Your task to perform on an android device: Go to eBay Image 0: 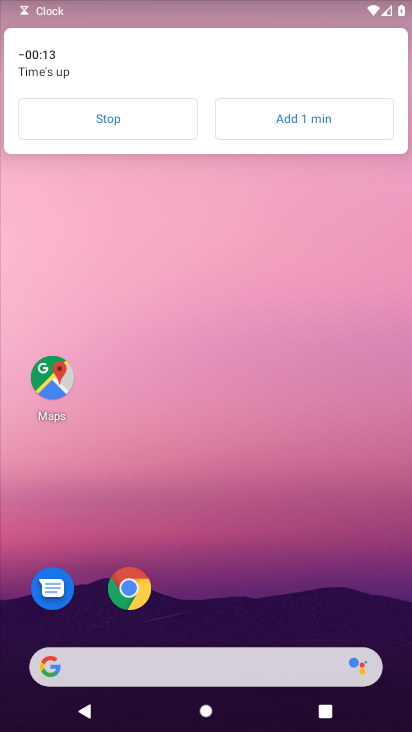
Step 0: click (142, 583)
Your task to perform on an android device: Go to eBay Image 1: 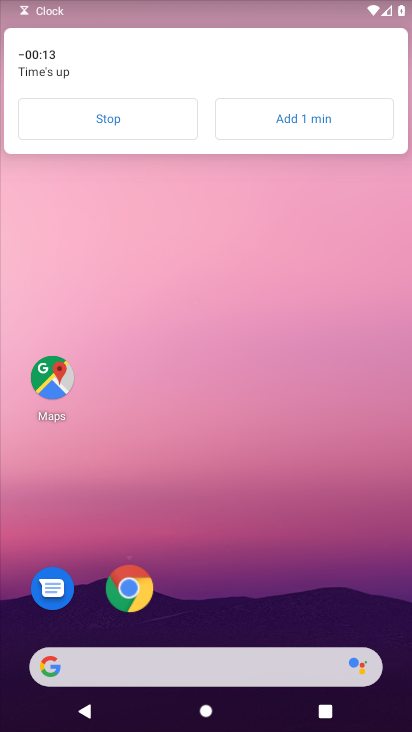
Step 1: click (111, 119)
Your task to perform on an android device: Go to eBay Image 2: 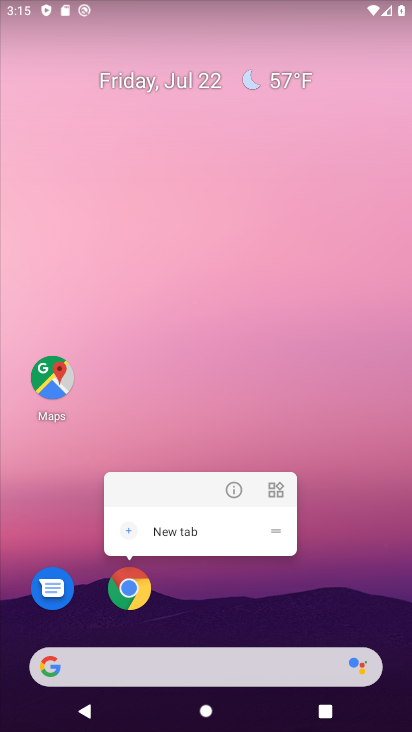
Step 2: click (138, 565)
Your task to perform on an android device: Go to eBay Image 3: 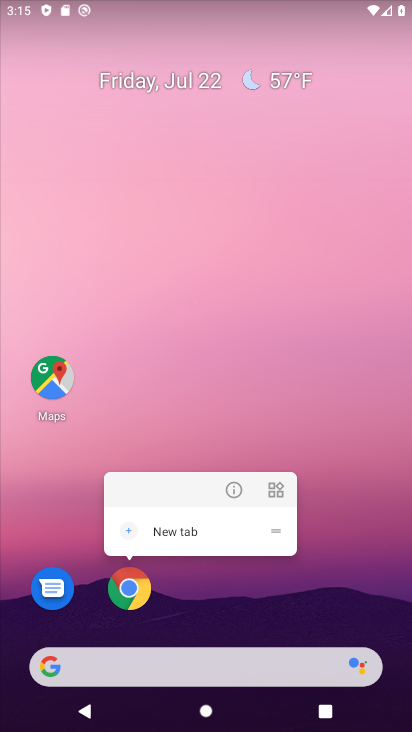
Step 3: click (138, 611)
Your task to perform on an android device: Go to eBay Image 4: 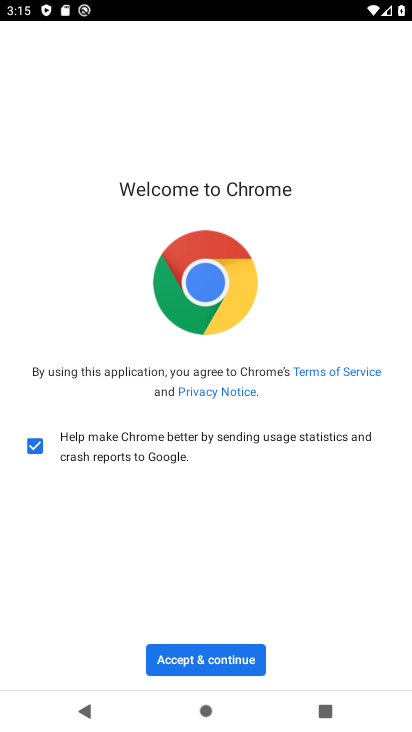
Step 4: click (240, 660)
Your task to perform on an android device: Go to eBay Image 5: 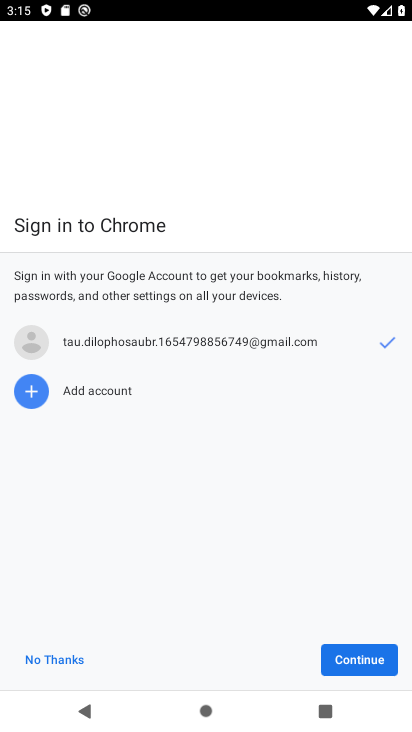
Step 5: click (373, 677)
Your task to perform on an android device: Go to eBay Image 6: 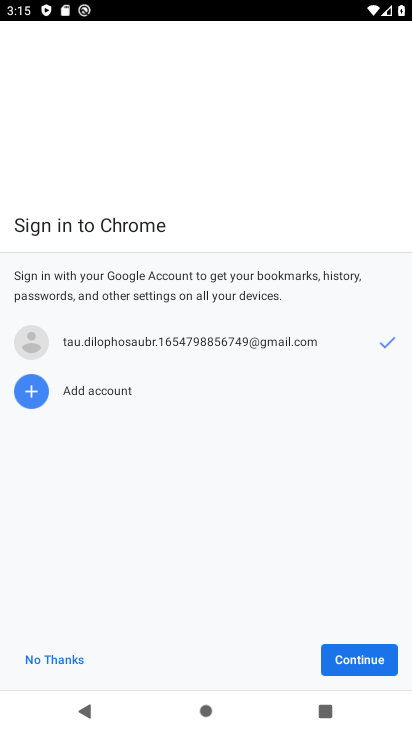
Step 6: click (387, 648)
Your task to perform on an android device: Go to eBay Image 7: 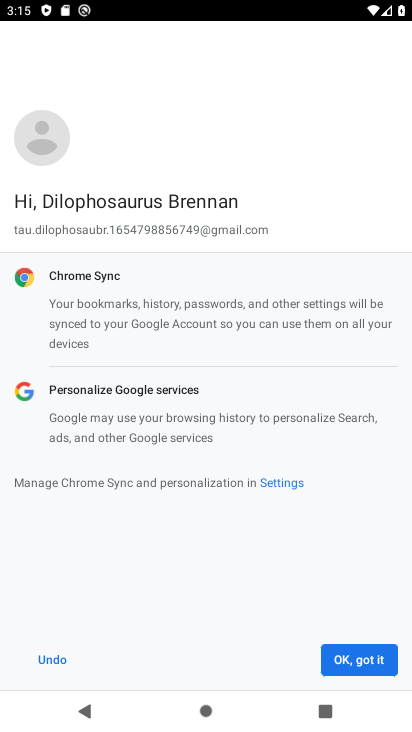
Step 7: click (361, 653)
Your task to perform on an android device: Go to eBay Image 8: 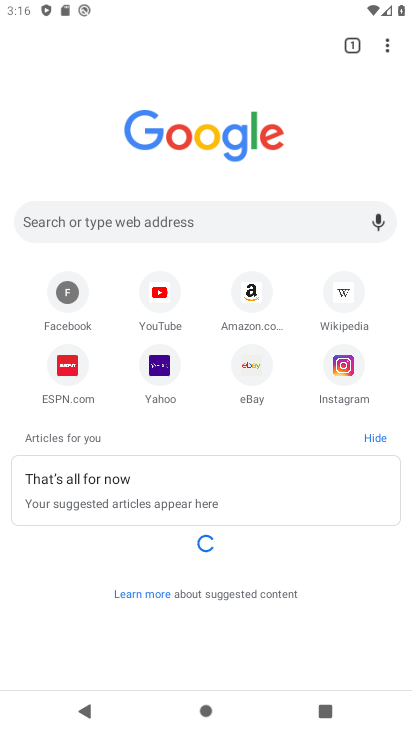
Step 8: click (256, 360)
Your task to perform on an android device: Go to eBay Image 9: 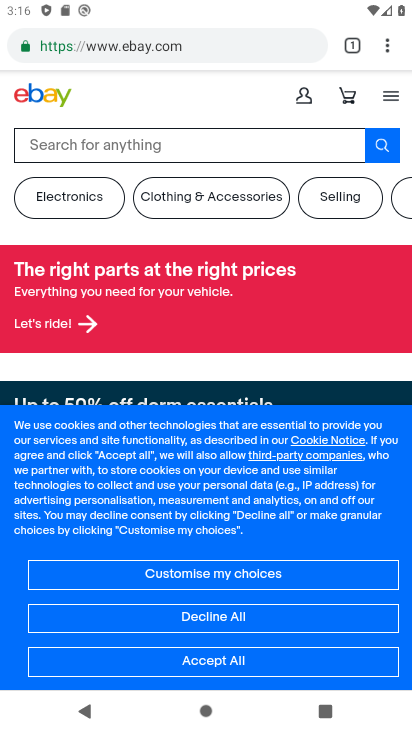
Step 9: click (250, 242)
Your task to perform on an android device: Go to eBay Image 10: 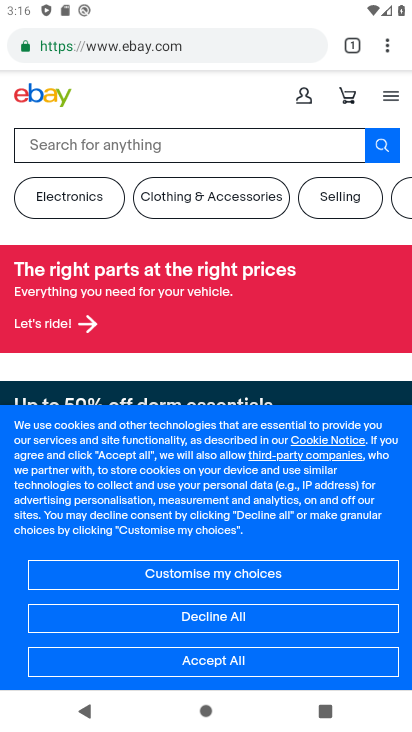
Step 10: task complete